Your task to perform on an android device: search for starred emails in the gmail app Image 0: 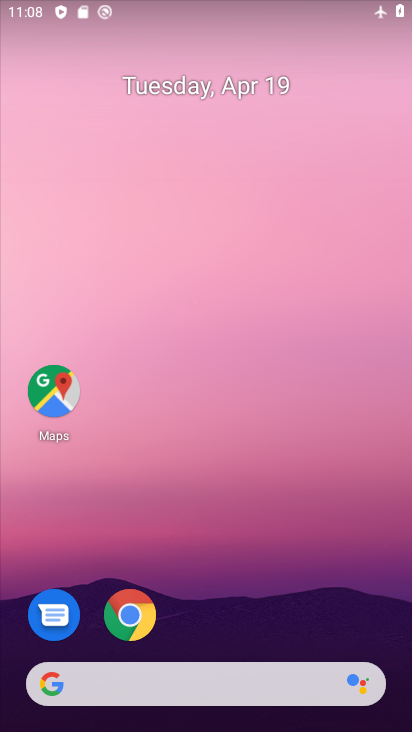
Step 0: drag from (187, 631) to (182, 223)
Your task to perform on an android device: search for starred emails in the gmail app Image 1: 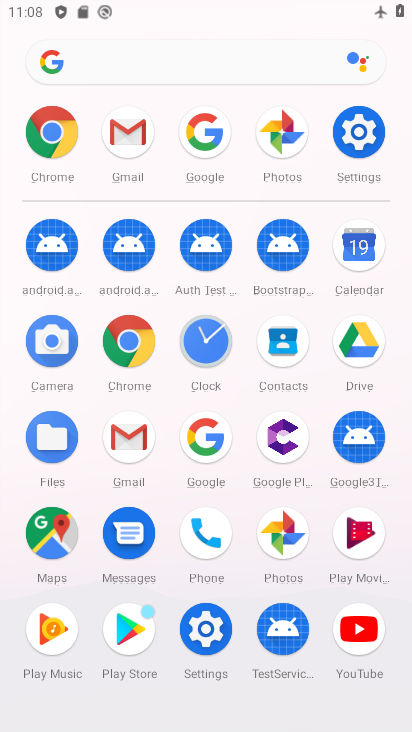
Step 1: click (126, 143)
Your task to perform on an android device: search for starred emails in the gmail app Image 2: 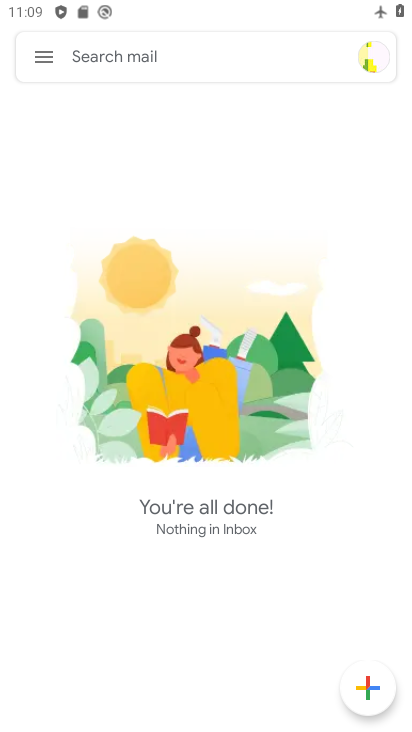
Step 2: click (46, 65)
Your task to perform on an android device: search for starred emails in the gmail app Image 3: 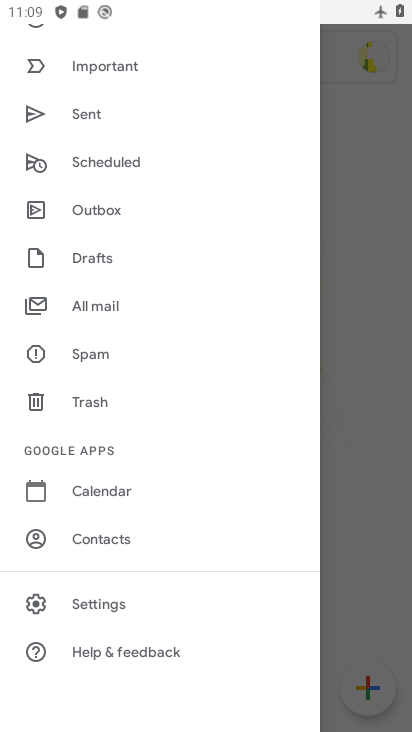
Step 3: drag from (138, 130) to (141, 401)
Your task to perform on an android device: search for starred emails in the gmail app Image 4: 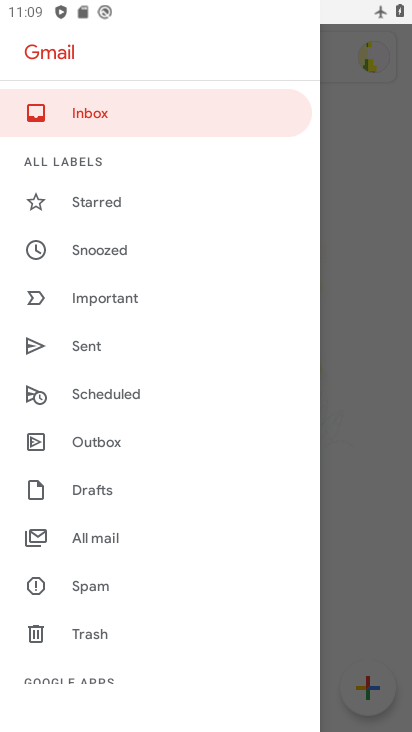
Step 4: click (107, 200)
Your task to perform on an android device: search for starred emails in the gmail app Image 5: 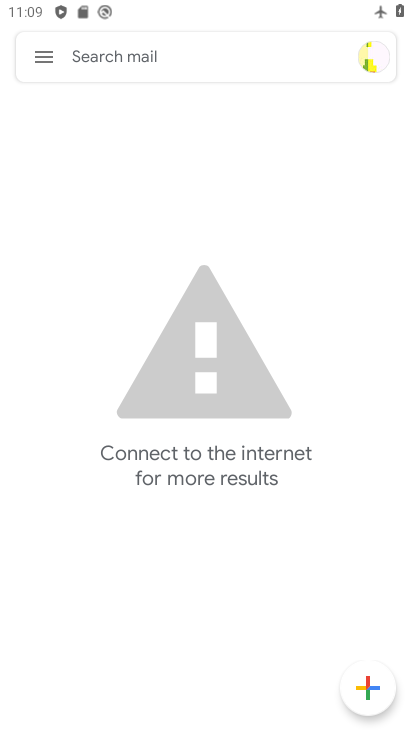
Step 5: task complete